Your task to perform on an android device: Open Youtube and go to the subscriptions tab Image 0: 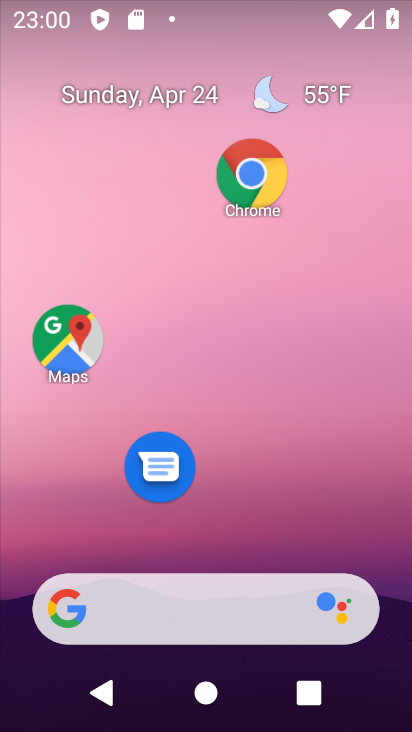
Step 0: drag from (254, 520) to (270, 47)
Your task to perform on an android device: Open Youtube and go to the subscriptions tab Image 1: 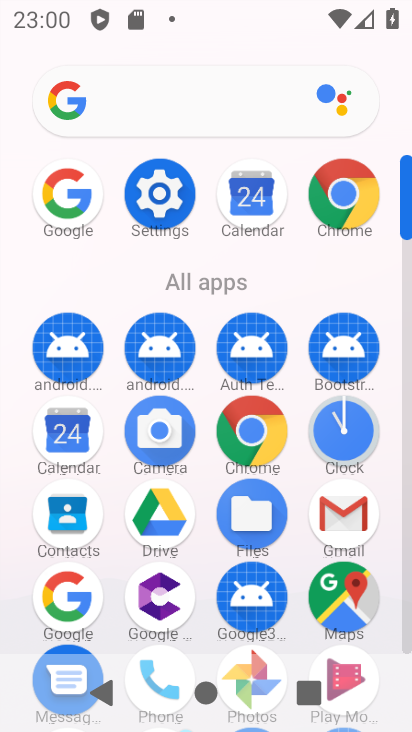
Step 1: drag from (299, 555) to (310, 93)
Your task to perform on an android device: Open Youtube and go to the subscriptions tab Image 2: 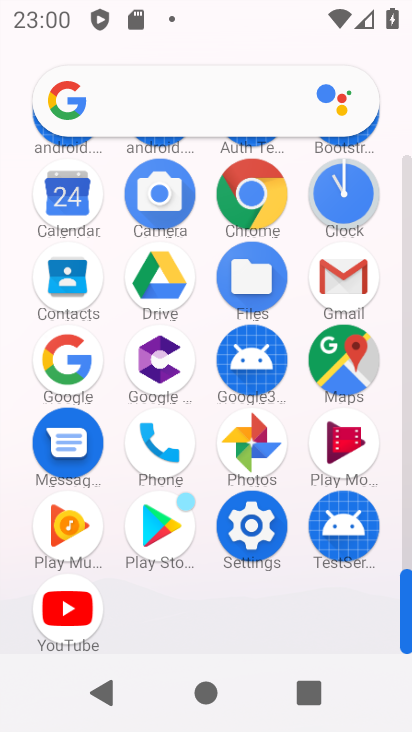
Step 2: click (66, 607)
Your task to perform on an android device: Open Youtube and go to the subscriptions tab Image 3: 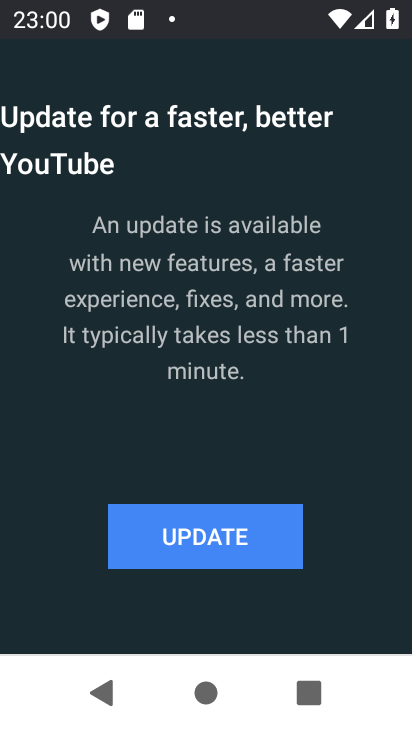
Step 3: click (194, 542)
Your task to perform on an android device: Open Youtube and go to the subscriptions tab Image 4: 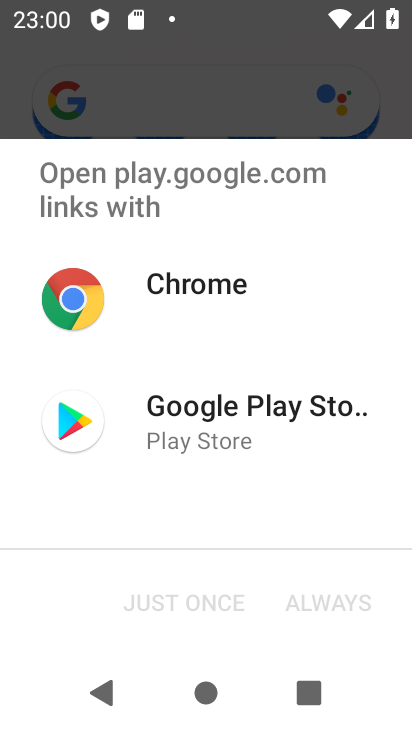
Step 4: click (196, 426)
Your task to perform on an android device: Open Youtube and go to the subscriptions tab Image 5: 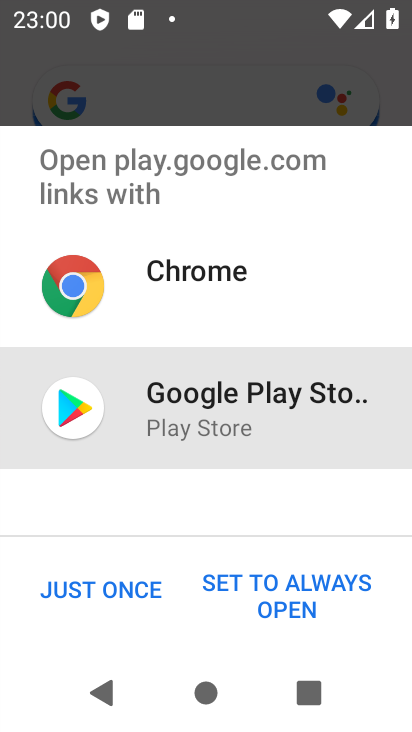
Step 5: click (118, 582)
Your task to perform on an android device: Open Youtube and go to the subscriptions tab Image 6: 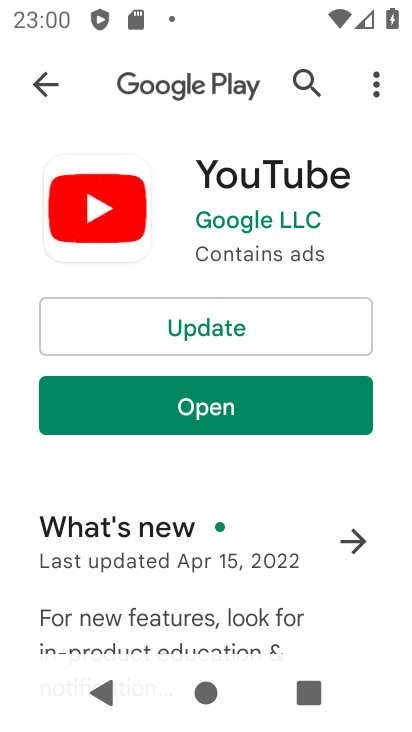
Step 6: click (204, 311)
Your task to perform on an android device: Open Youtube and go to the subscriptions tab Image 7: 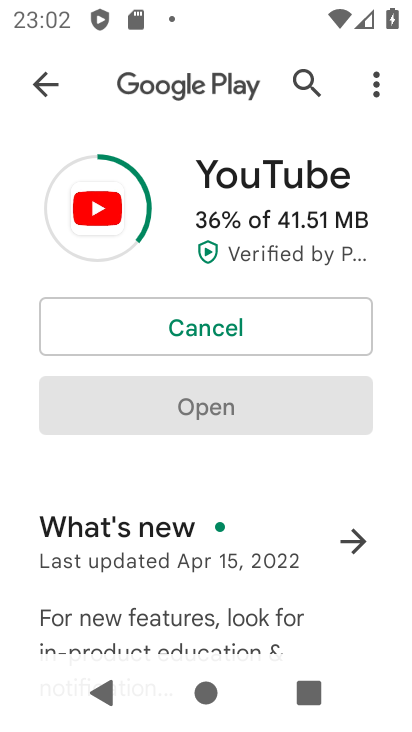
Step 7: task complete